Your task to perform on an android device: Who is the president of the United States? Image 0: 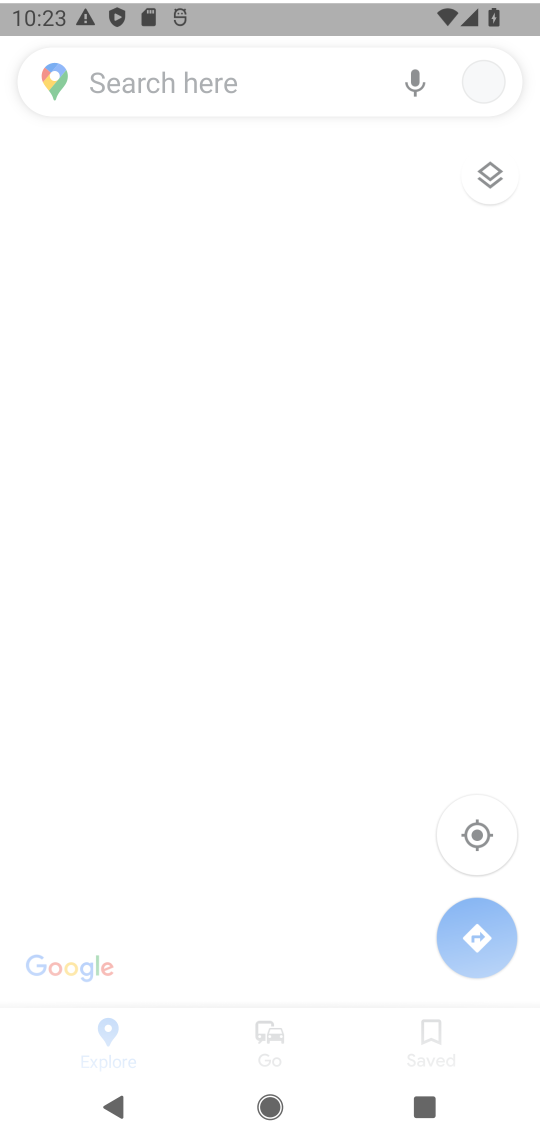
Step 0: press home button
Your task to perform on an android device: Who is the president of the United States? Image 1: 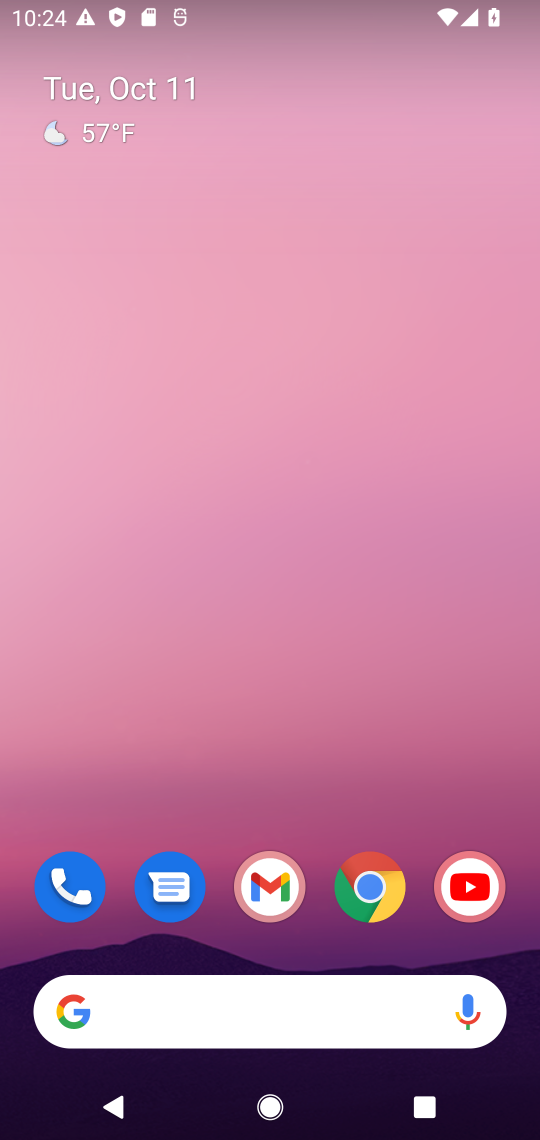
Step 1: click (307, 1014)
Your task to perform on an android device: Who is the president of the United States? Image 2: 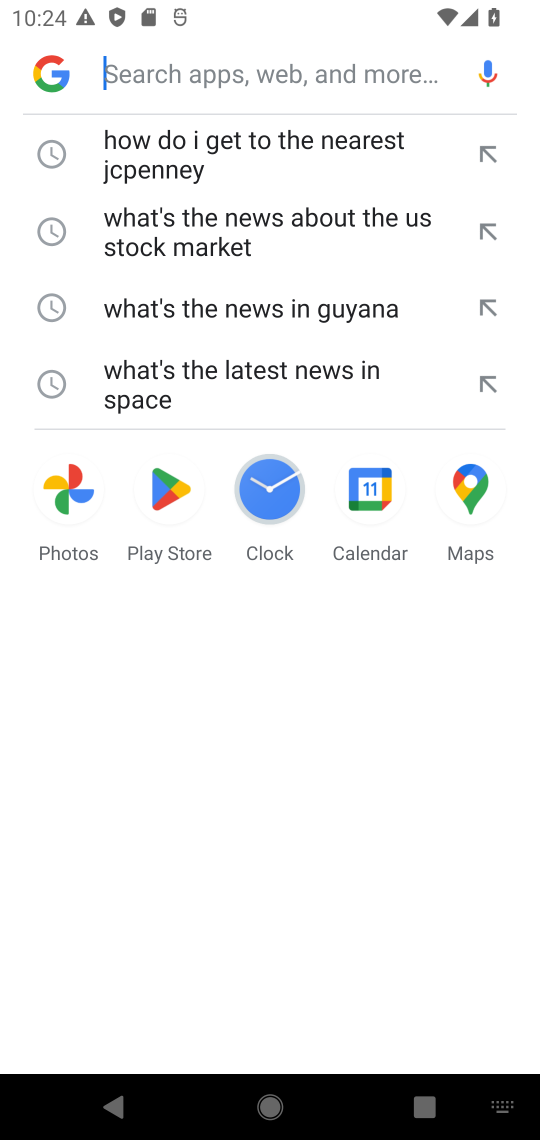
Step 2: type "Who is the president of the United States"
Your task to perform on an android device: Who is the president of the United States? Image 3: 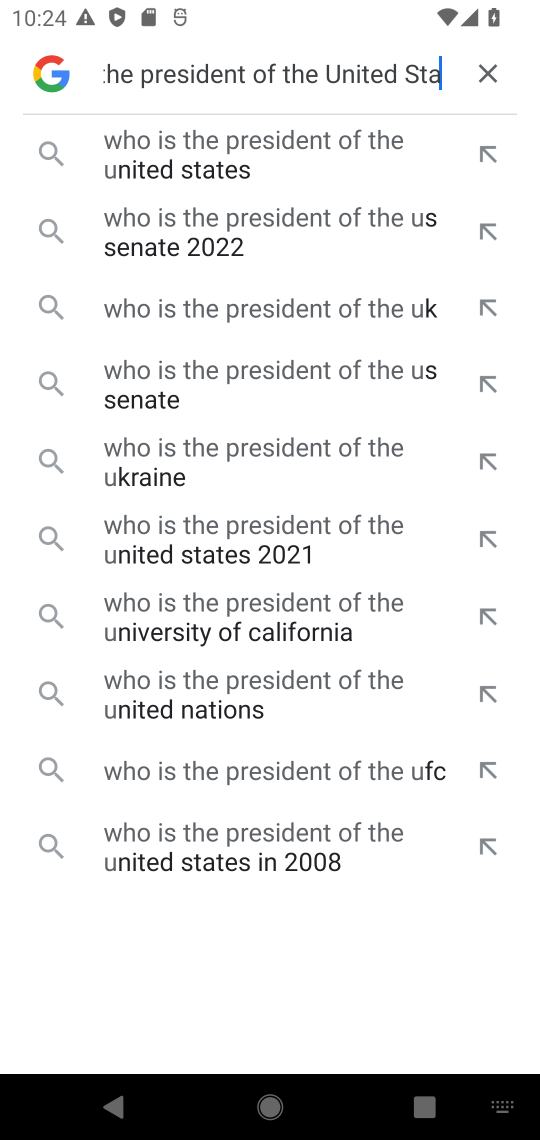
Step 3: press enter
Your task to perform on an android device: Who is the president of the United States? Image 4: 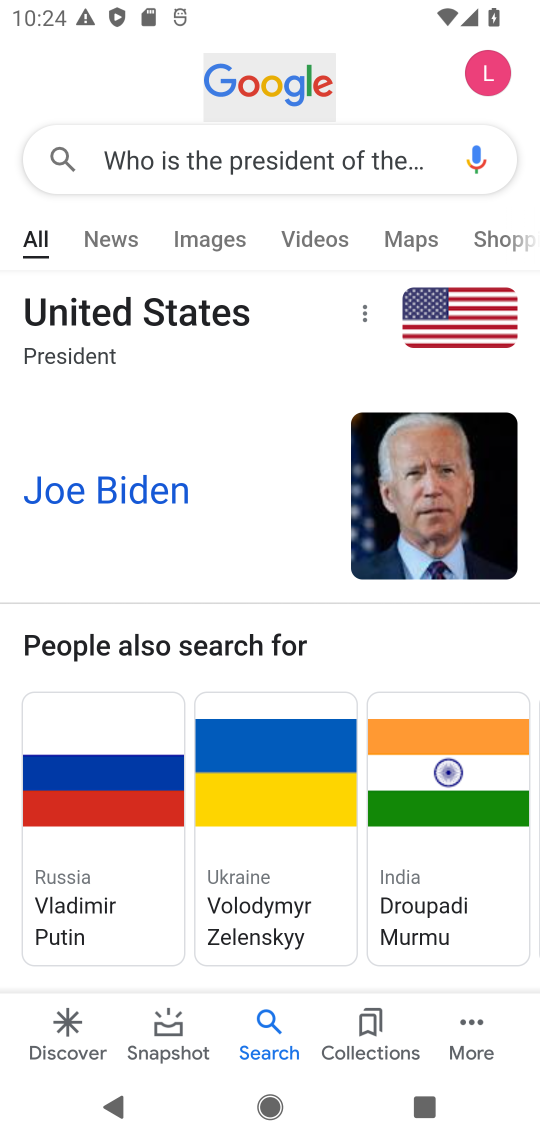
Step 4: task complete